Your task to perform on an android device: Go to calendar. Show me events next week Image 0: 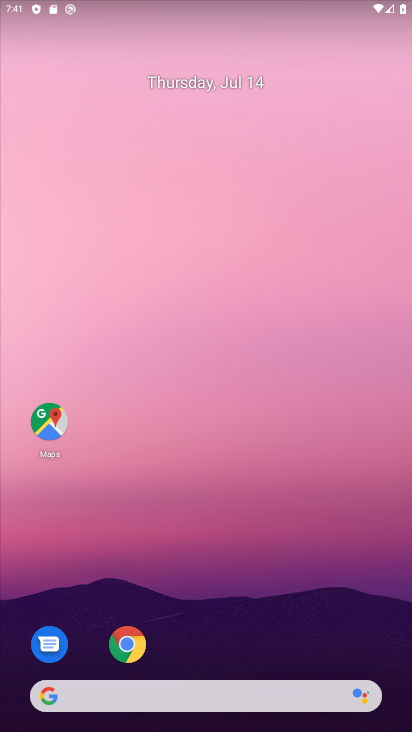
Step 0: drag from (267, 676) to (189, 72)
Your task to perform on an android device: Go to calendar. Show me events next week Image 1: 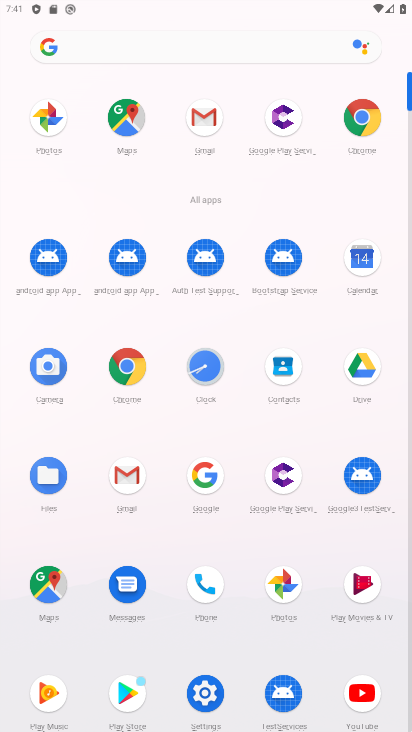
Step 1: click (367, 265)
Your task to perform on an android device: Go to calendar. Show me events next week Image 2: 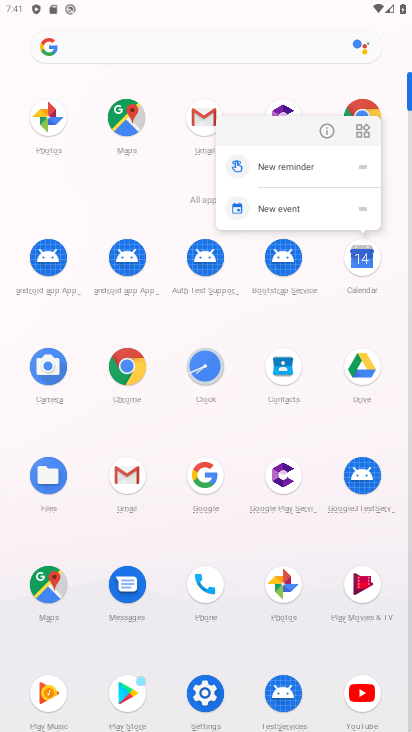
Step 2: click (377, 270)
Your task to perform on an android device: Go to calendar. Show me events next week Image 3: 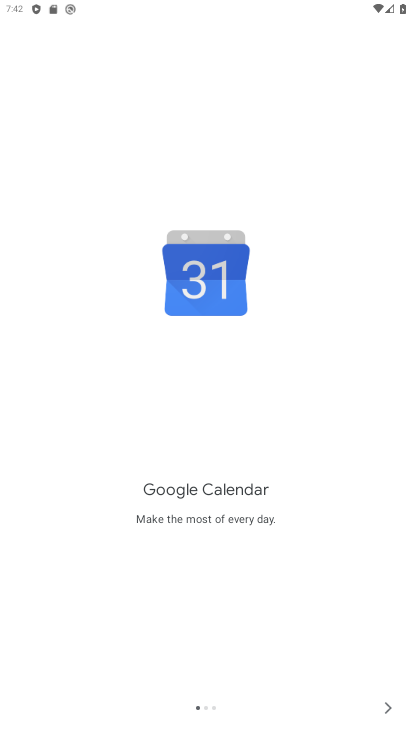
Step 3: click (382, 701)
Your task to perform on an android device: Go to calendar. Show me events next week Image 4: 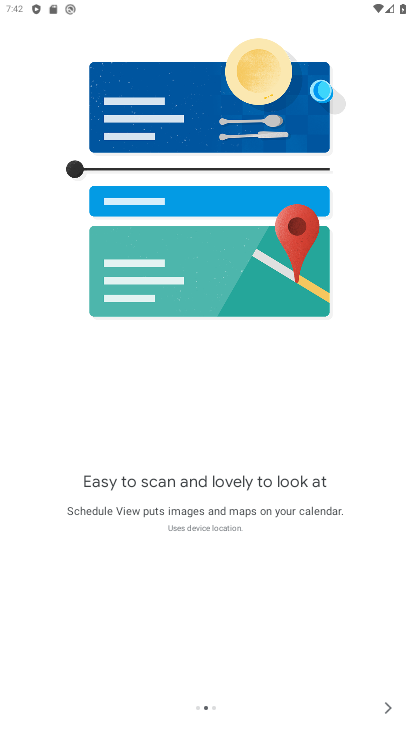
Step 4: click (387, 703)
Your task to perform on an android device: Go to calendar. Show me events next week Image 5: 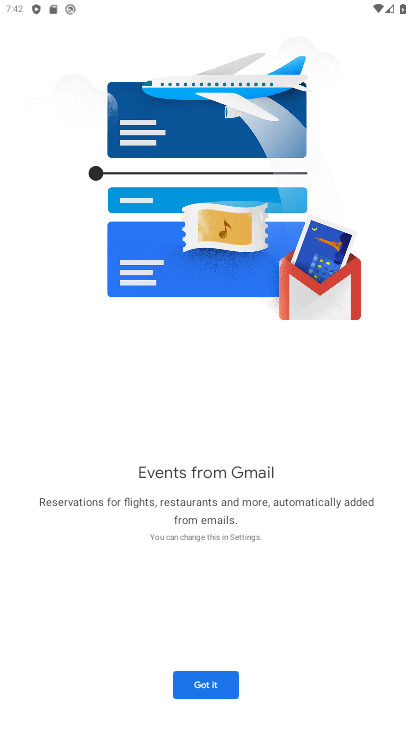
Step 5: click (223, 686)
Your task to perform on an android device: Go to calendar. Show me events next week Image 6: 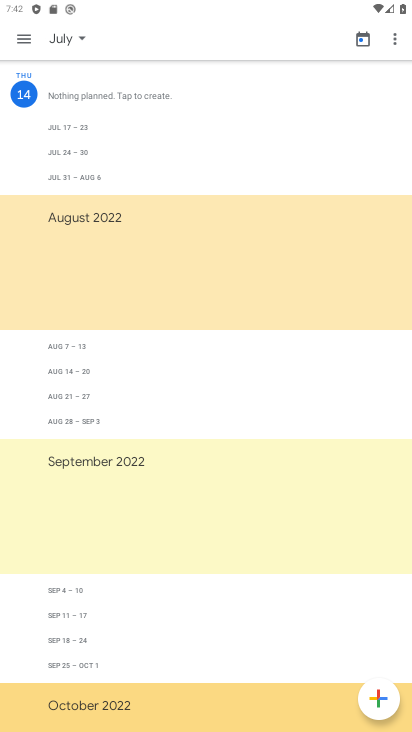
Step 6: click (27, 45)
Your task to perform on an android device: Go to calendar. Show me events next week Image 7: 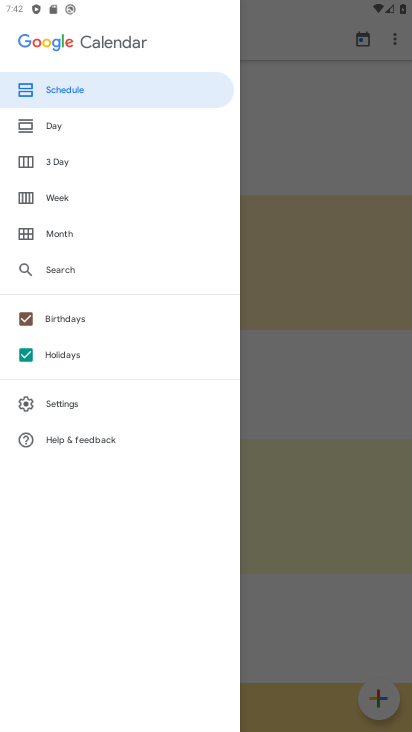
Step 7: click (108, 196)
Your task to perform on an android device: Go to calendar. Show me events next week Image 8: 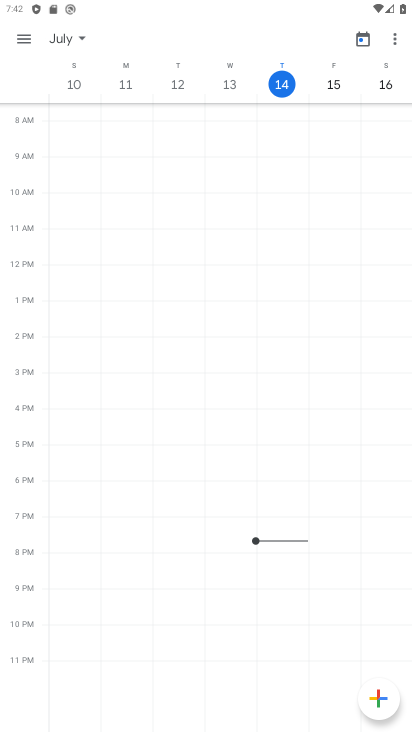
Step 8: task complete